Your task to perform on an android device: open app "Duolingo: language lessons" (install if not already installed), go to login, and select forgot password Image 0: 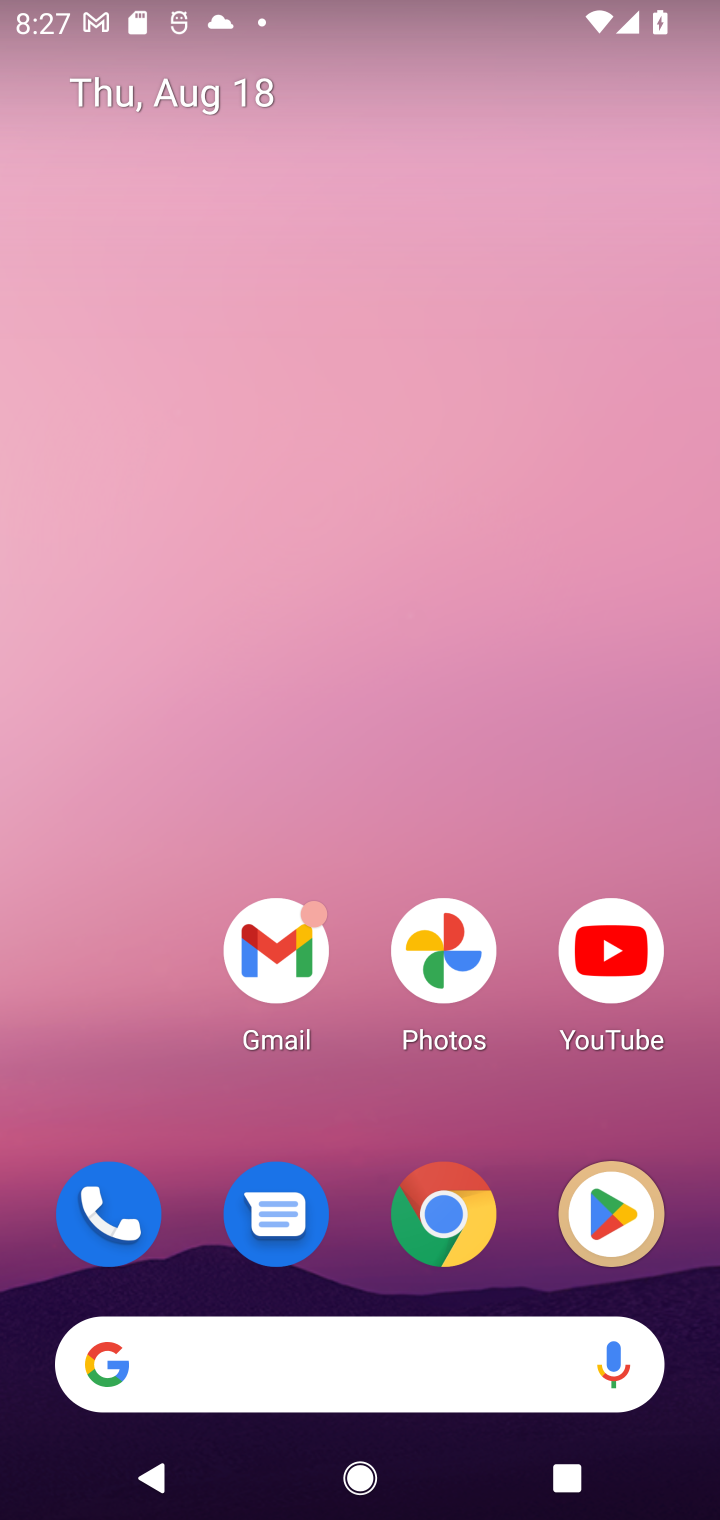
Step 0: click (608, 1234)
Your task to perform on an android device: open app "Duolingo: language lessons" (install if not already installed), go to login, and select forgot password Image 1: 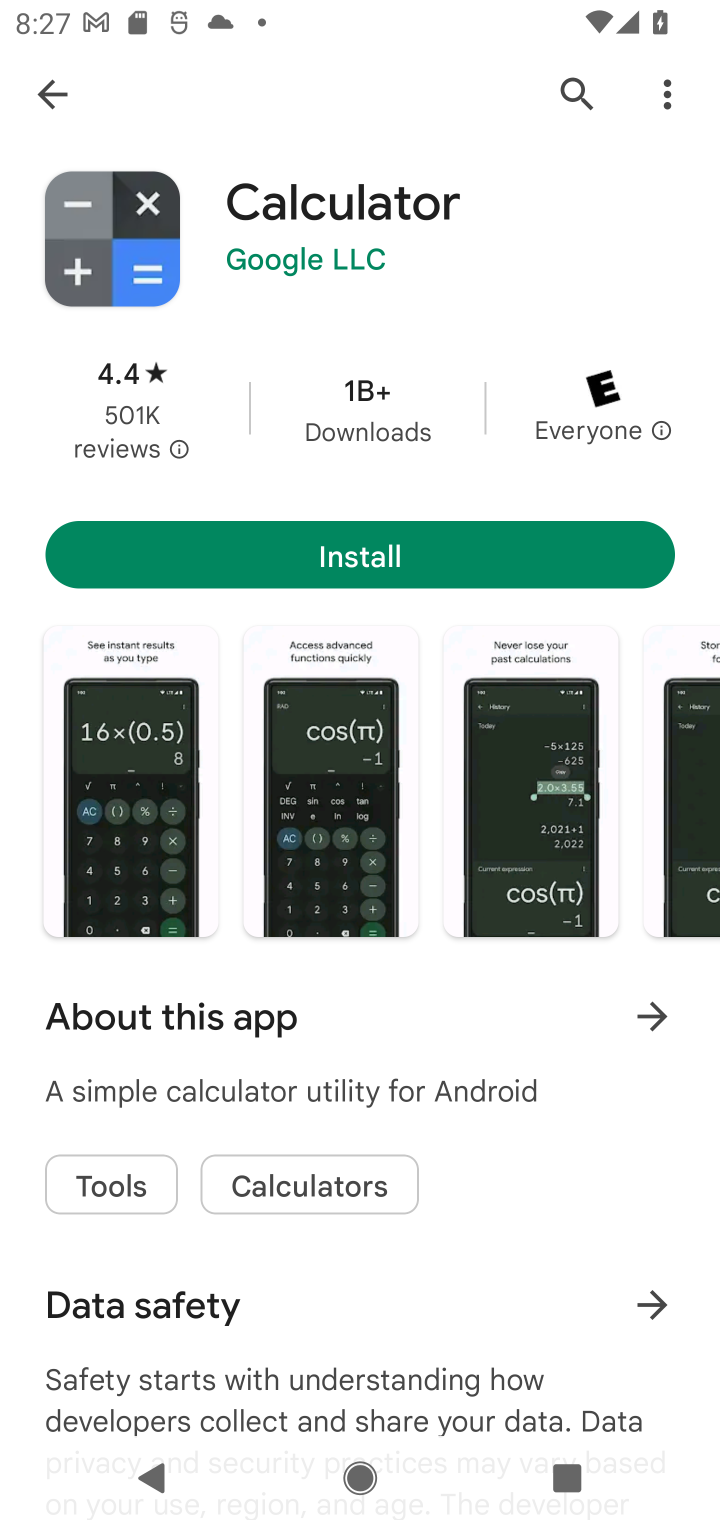
Step 1: click (584, 84)
Your task to perform on an android device: open app "Duolingo: language lessons" (install if not already installed), go to login, and select forgot password Image 2: 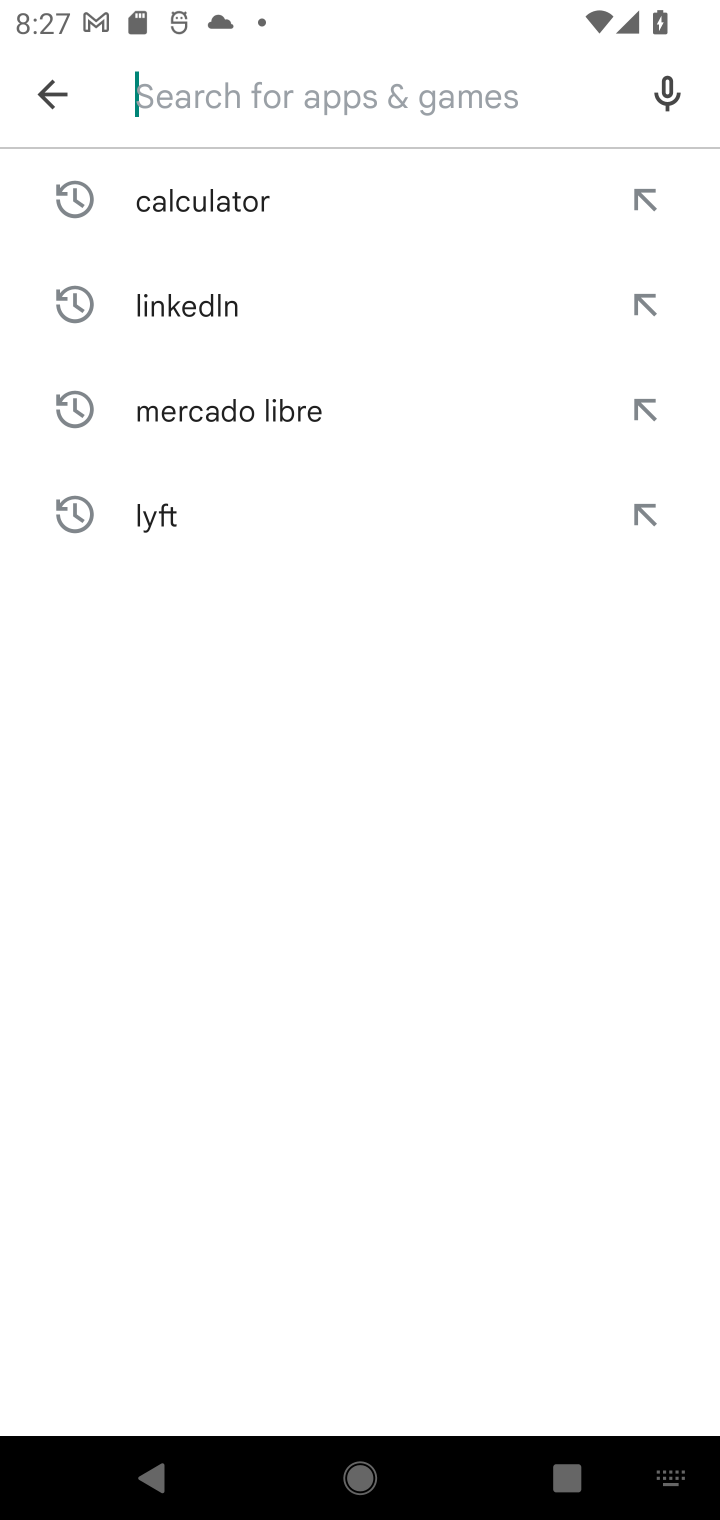
Step 2: click (324, 80)
Your task to perform on an android device: open app "Duolingo: language lessons" (install if not already installed), go to login, and select forgot password Image 3: 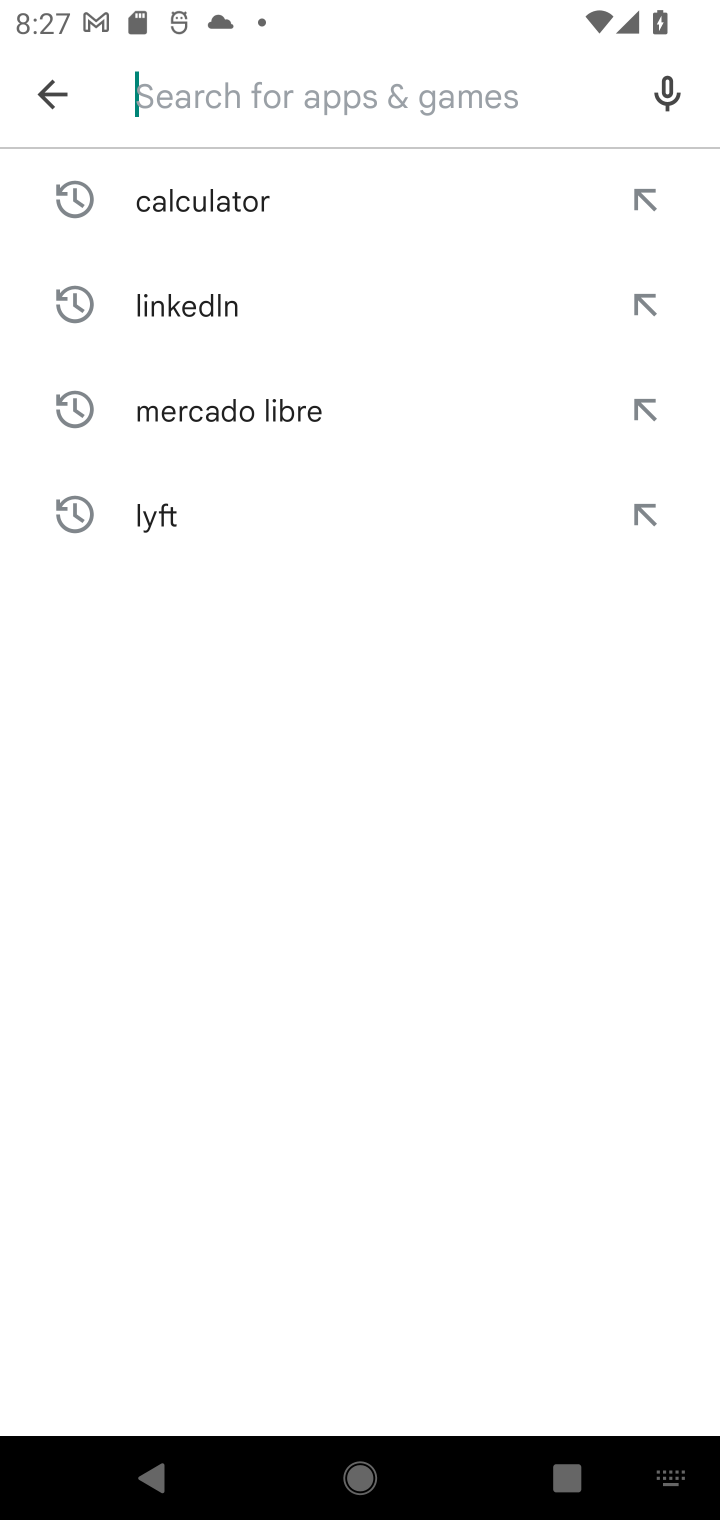
Step 3: type "duolingo"
Your task to perform on an android device: open app "Duolingo: language lessons" (install if not already installed), go to login, and select forgot password Image 4: 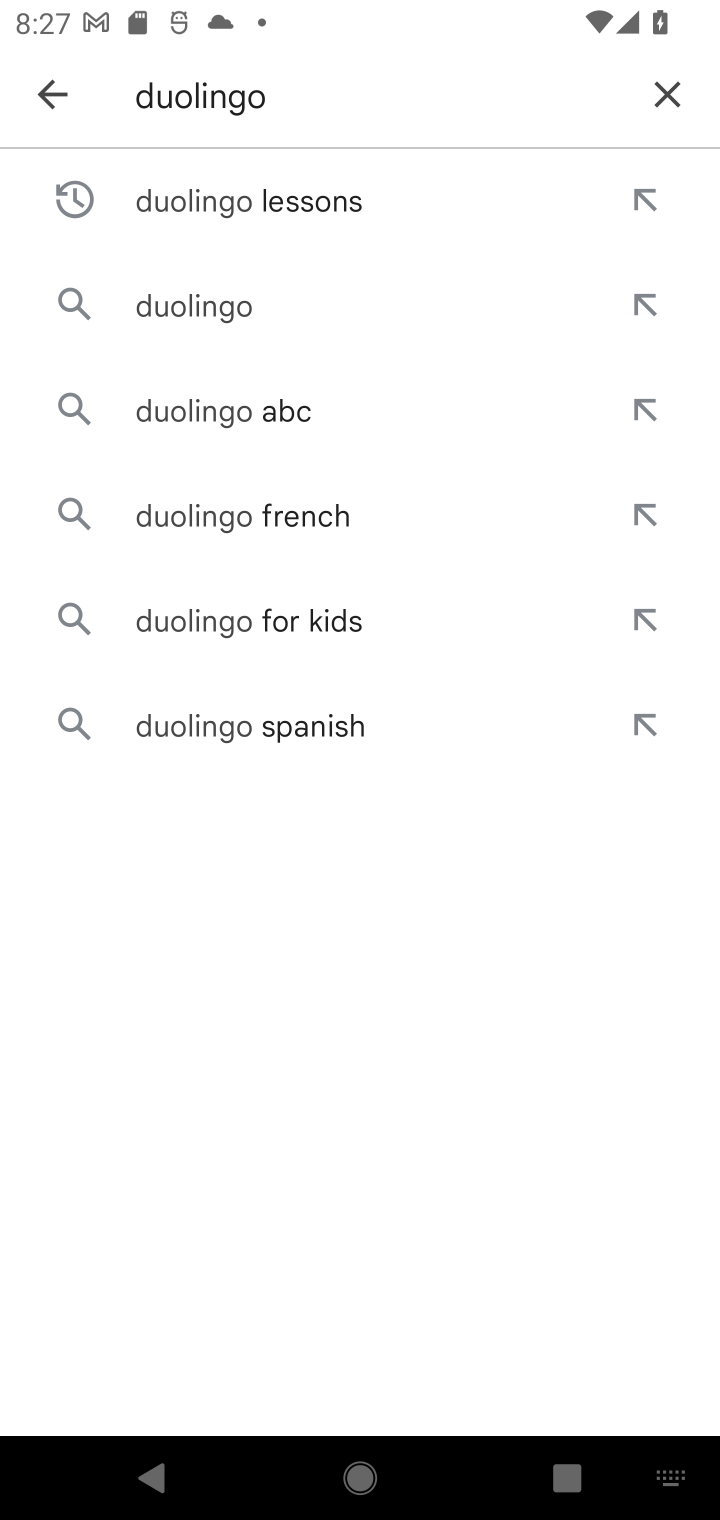
Step 4: click (299, 198)
Your task to perform on an android device: open app "Duolingo: language lessons" (install if not already installed), go to login, and select forgot password Image 5: 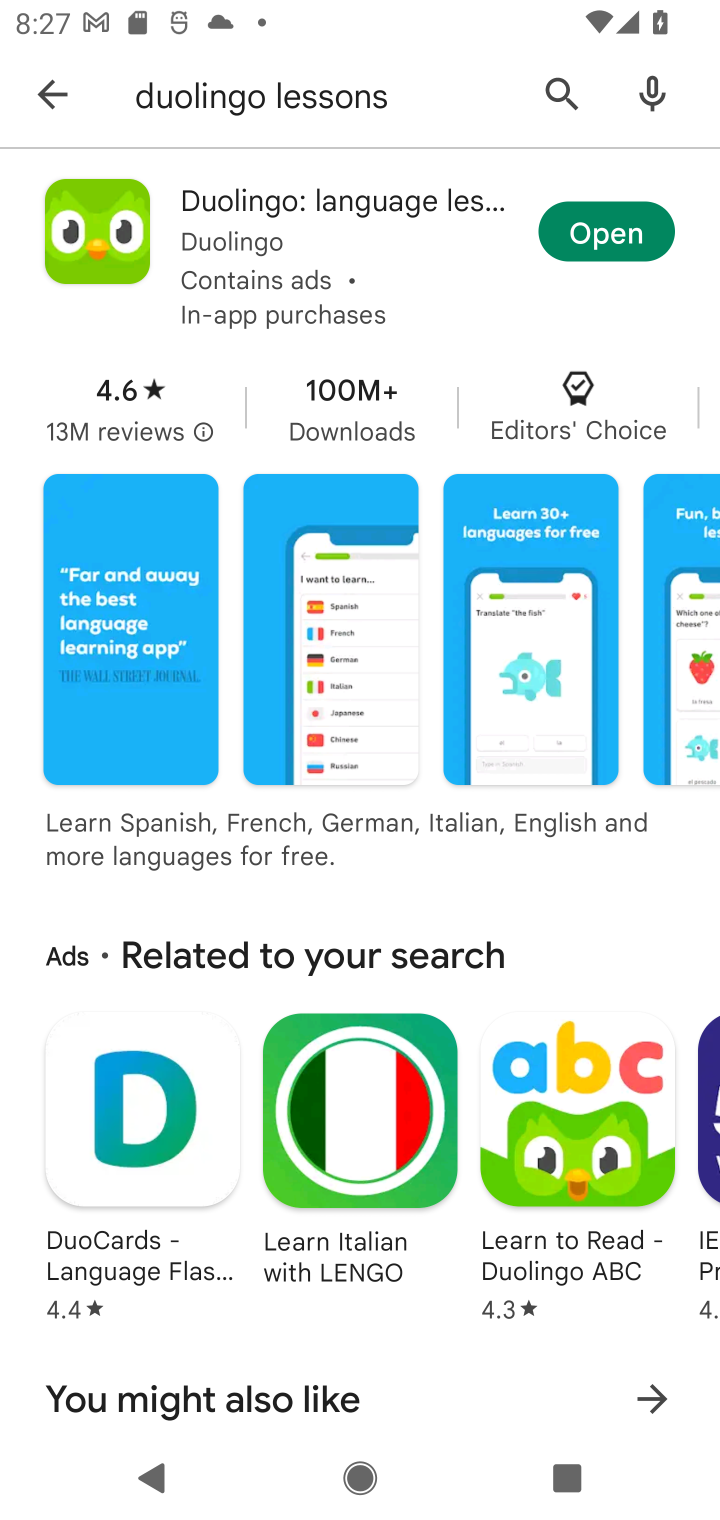
Step 5: click (584, 223)
Your task to perform on an android device: open app "Duolingo: language lessons" (install if not already installed), go to login, and select forgot password Image 6: 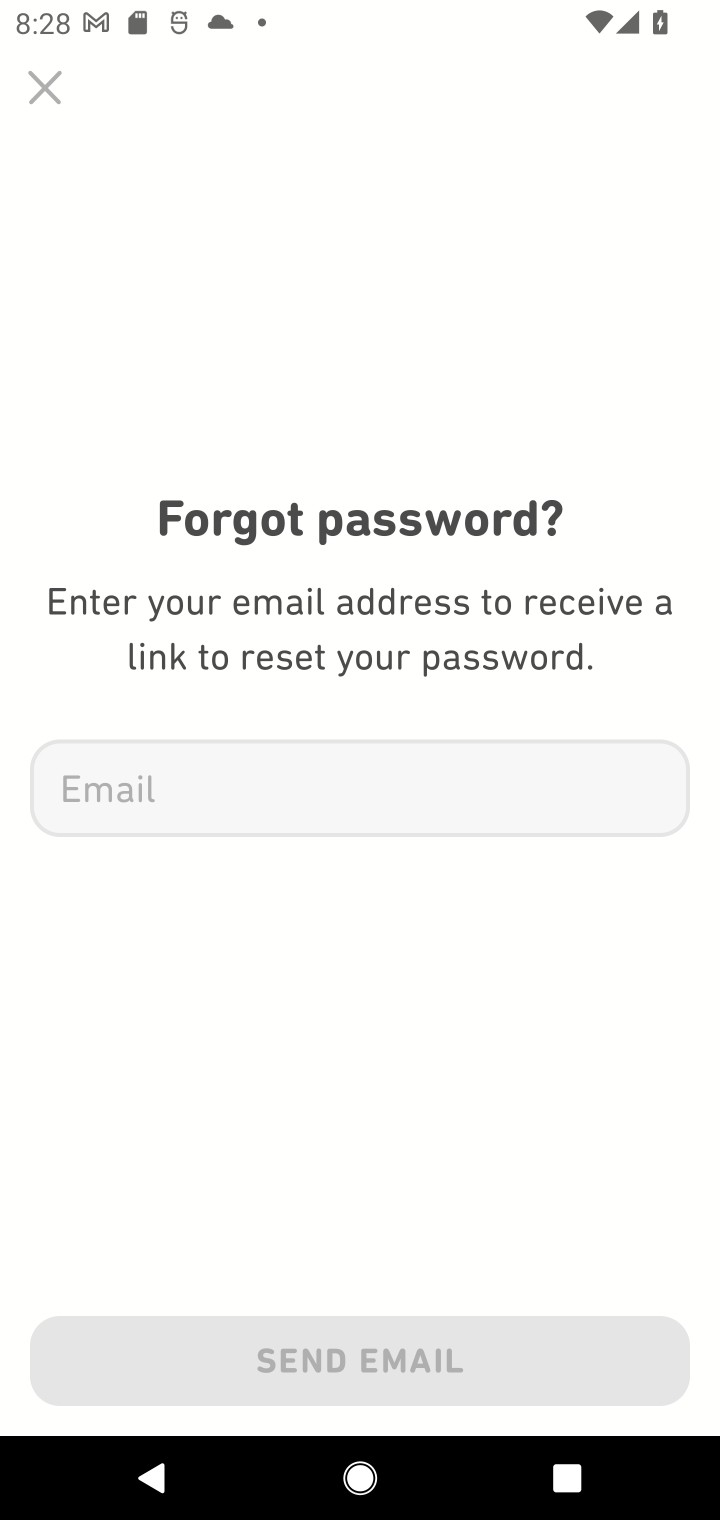
Step 6: click (327, 515)
Your task to perform on an android device: open app "Duolingo: language lessons" (install if not already installed), go to login, and select forgot password Image 7: 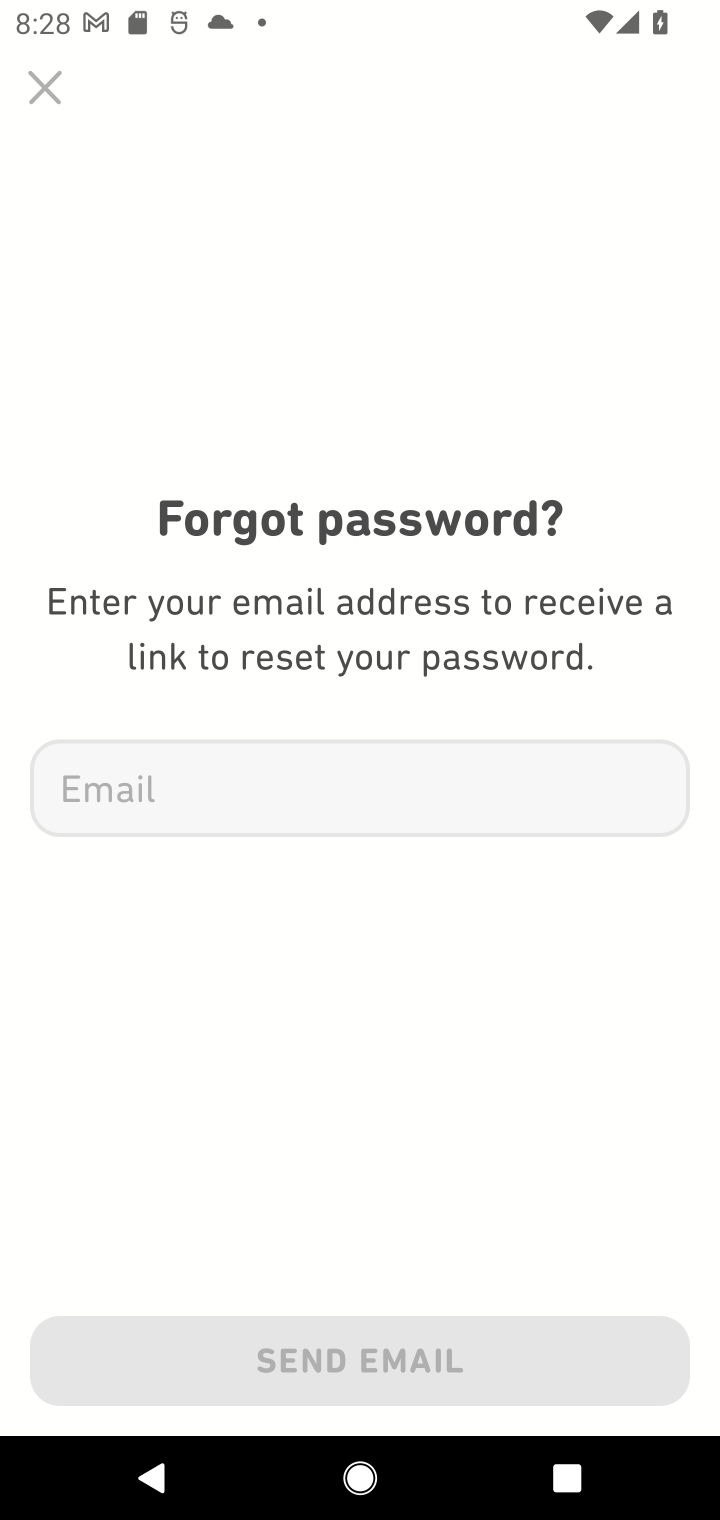
Step 7: task complete